Your task to perform on an android device: Open Google Maps and go to "Timeline" Image 0: 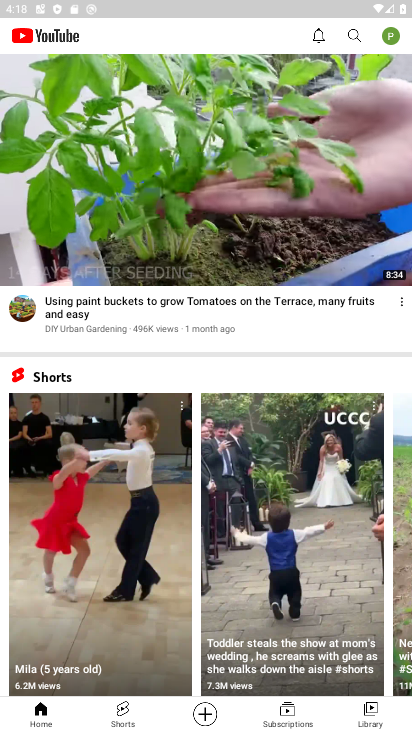
Step 0: press home button
Your task to perform on an android device: Open Google Maps and go to "Timeline" Image 1: 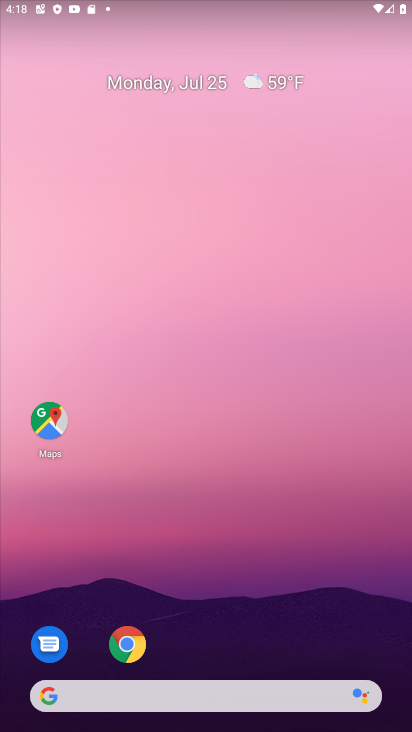
Step 1: click (59, 424)
Your task to perform on an android device: Open Google Maps and go to "Timeline" Image 2: 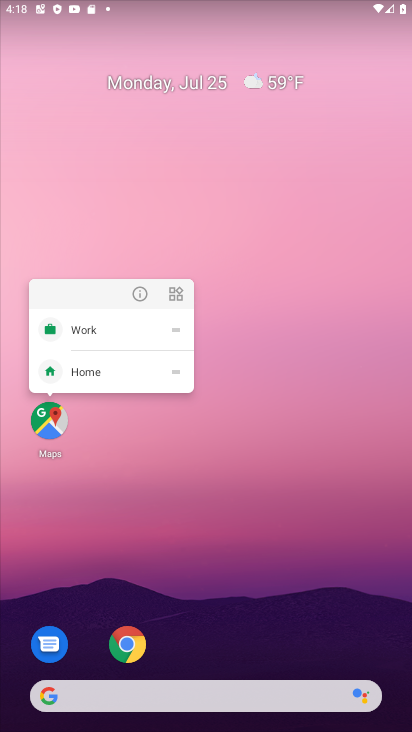
Step 2: click (48, 414)
Your task to perform on an android device: Open Google Maps and go to "Timeline" Image 3: 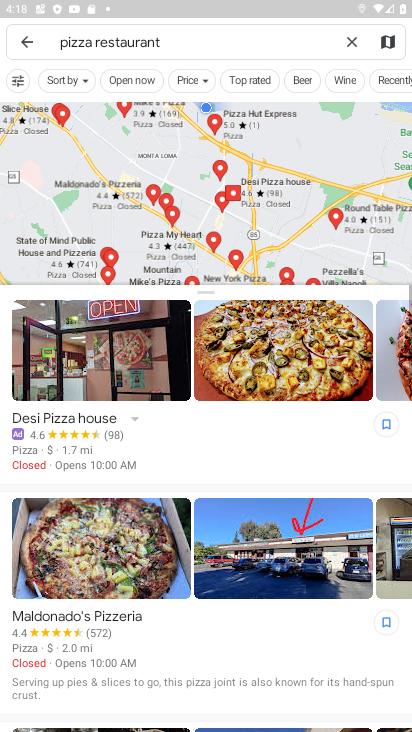
Step 3: click (346, 40)
Your task to perform on an android device: Open Google Maps and go to "Timeline" Image 4: 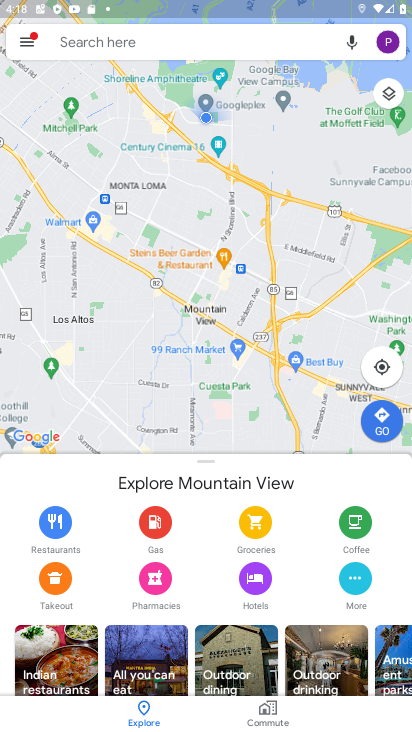
Step 4: task complete